Your task to perform on an android device: change your default location settings in chrome Image 0: 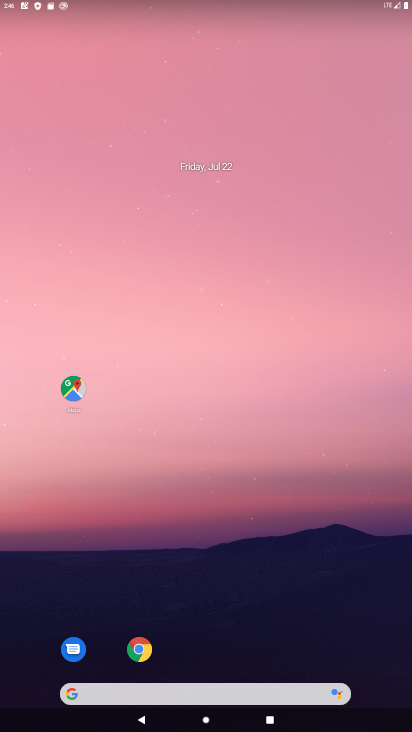
Step 0: drag from (238, 426) to (41, 0)
Your task to perform on an android device: change your default location settings in chrome Image 1: 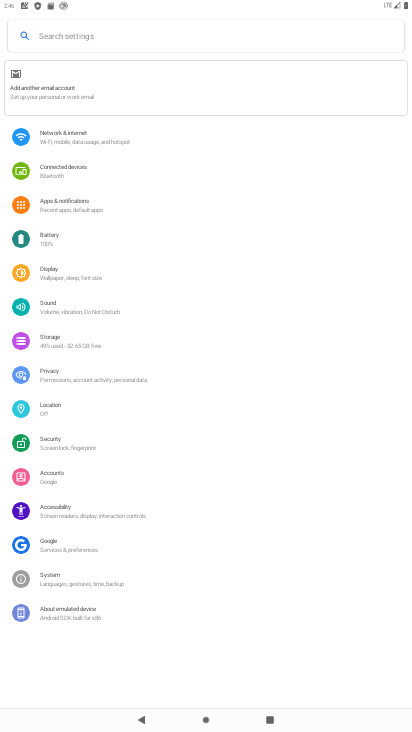
Step 1: press home button
Your task to perform on an android device: change your default location settings in chrome Image 2: 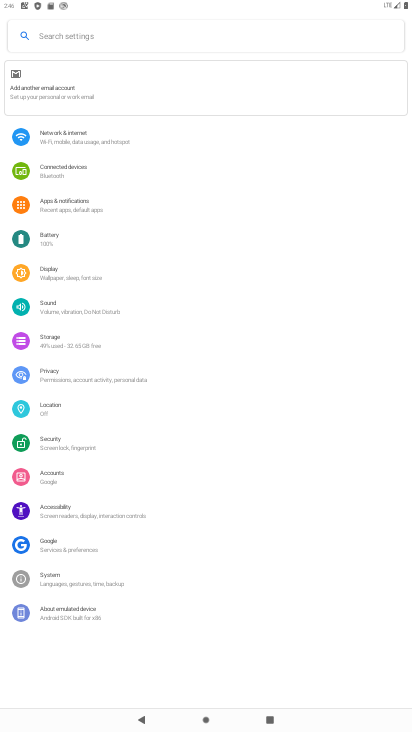
Step 2: press home button
Your task to perform on an android device: change your default location settings in chrome Image 3: 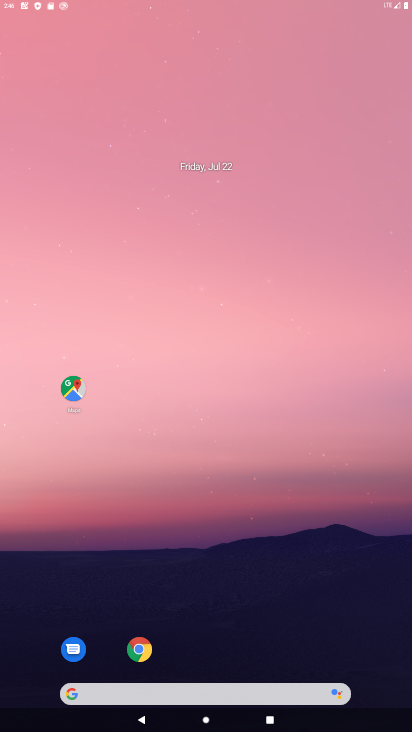
Step 3: drag from (185, 618) to (259, 14)
Your task to perform on an android device: change your default location settings in chrome Image 4: 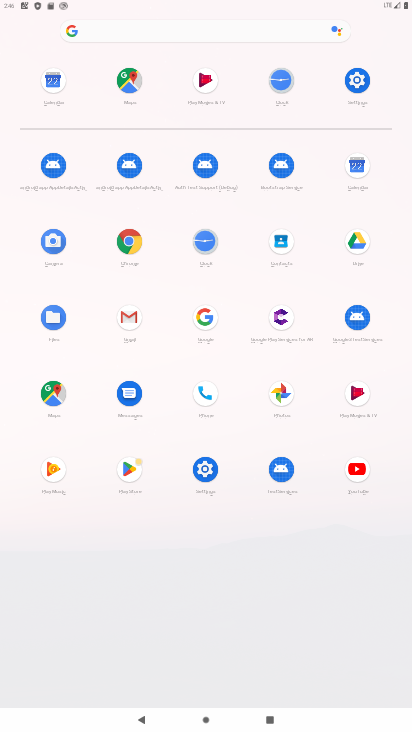
Step 4: click (126, 240)
Your task to perform on an android device: change your default location settings in chrome Image 5: 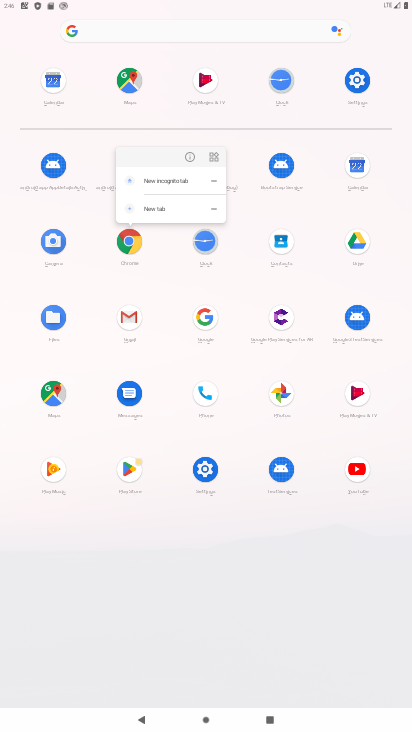
Step 5: click (187, 152)
Your task to perform on an android device: change your default location settings in chrome Image 6: 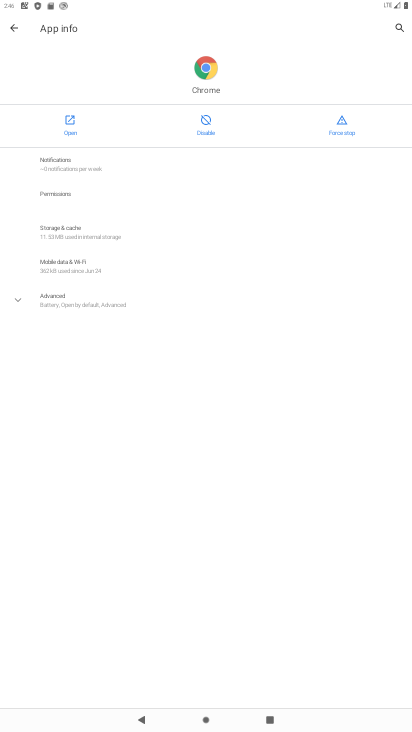
Step 6: drag from (204, 443) to (200, 123)
Your task to perform on an android device: change your default location settings in chrome Image 7: 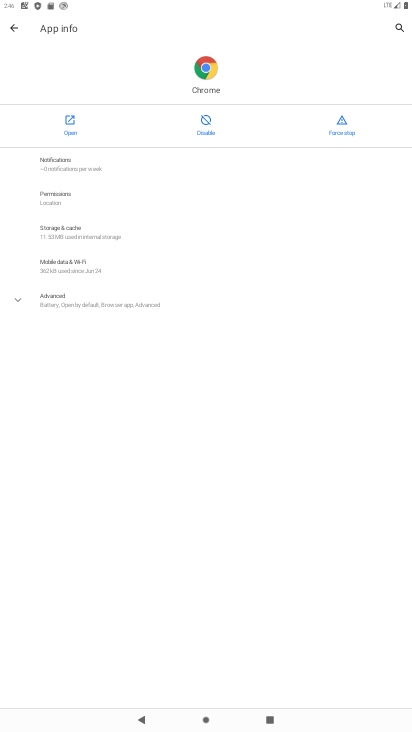
Step 7: click (81, 119)
Your task to perform on an android device: change your default location settings in chrome Image 8: 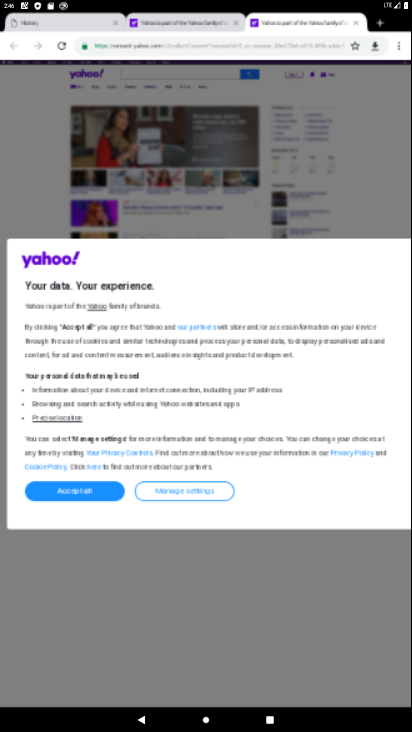
Step 8: drag from (244, 535) to (239, 298)
Your task to perform on an android device: change your default location settings in chrome Image 9: 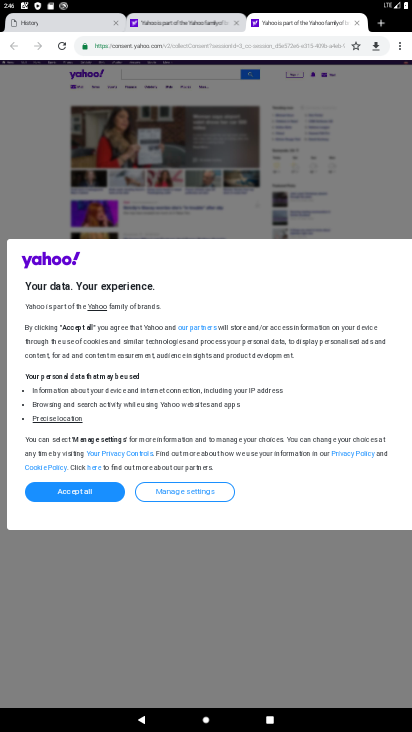
Step 9: drag from (239, 498) to (266, 288)
Your task to perform on an android device: change your default location settings in chrome Image 10: 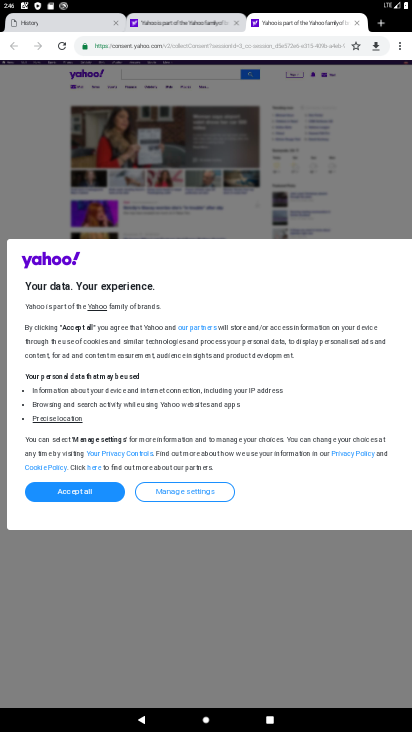
Step 10: drag from (158, 287) to (227, 574)
Your task to perform on an android device: change your default location settings in chrome Image 11: 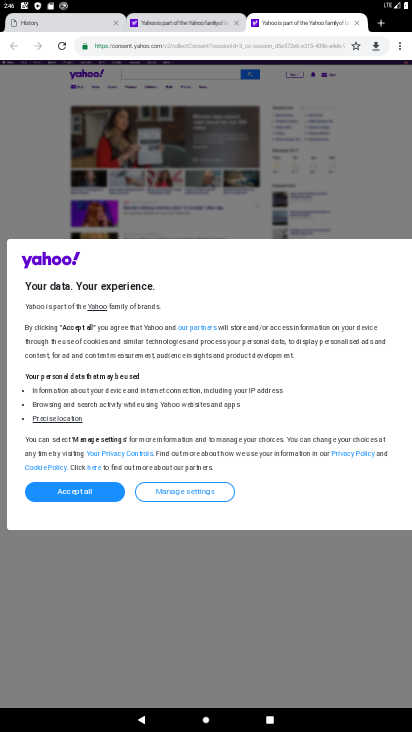
Step 11: drag from (227, 344) to (262, 576)
Your task to perform on an android device: change your default location settings in chrome Image 12: 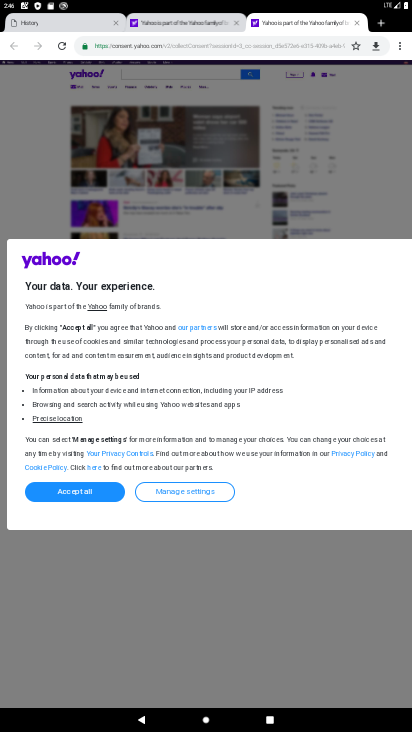
Step 12: drag from (397, 45) to (310, 308)
Your task to perform on an android device: change your default location settings in chrome Image 13: 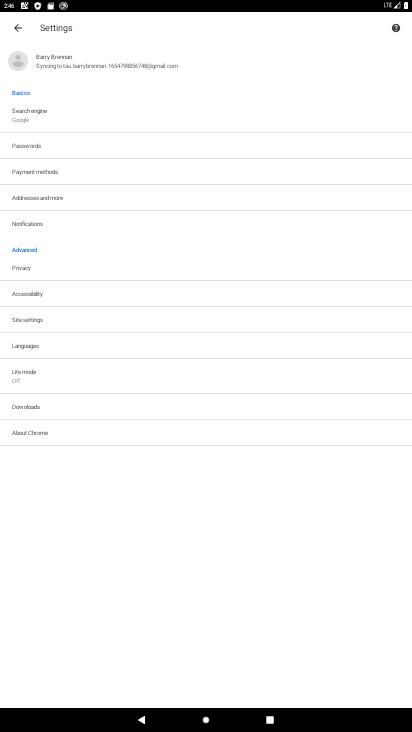
Step 13: click (40, 322)
Your task to perform on an android device: change your default location settings in chrome Image 14: 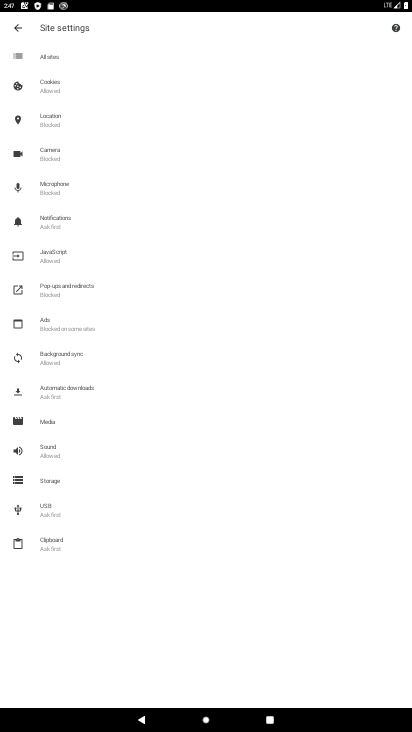
Step 14: click (82, 114)
Your task to perform on an android device: change your default location settings in chrome Image 15: 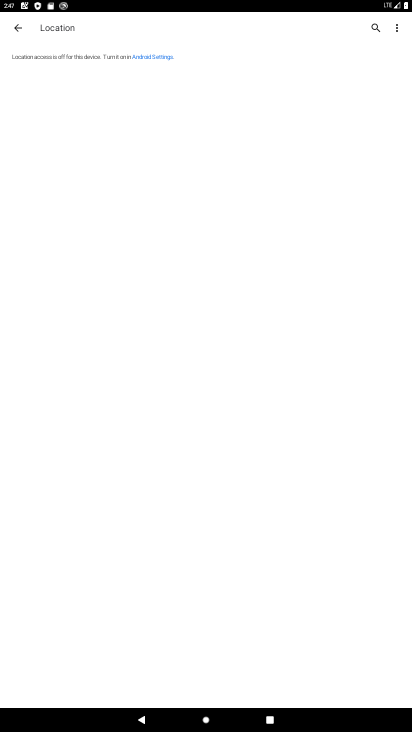
Step 15: drag from (233, 472) to (221, 157)
Your task to perform on an android device: change your default location settings in chrome Image 16: 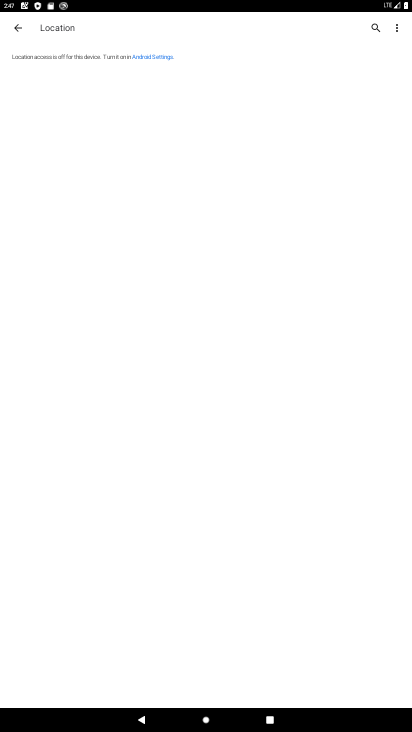
Step 16: drag from (217, 495) to (259, 223)
Your task to perform on an android device: change your default location settings in chrome Image 17: 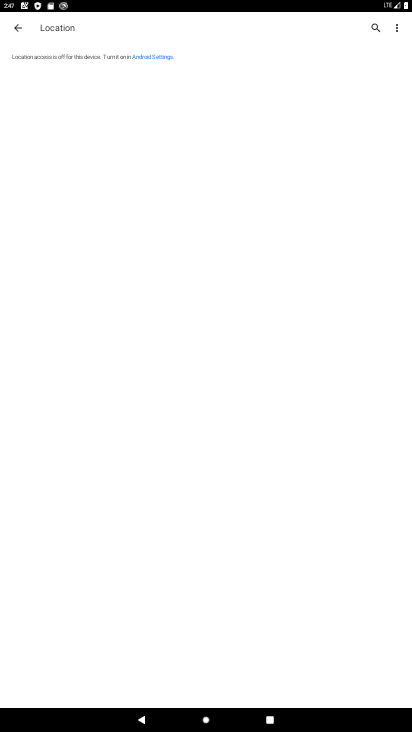
Step 17: click (225, 108)
Your task to perform on an android device: change your default location settings in chrome Image 18: 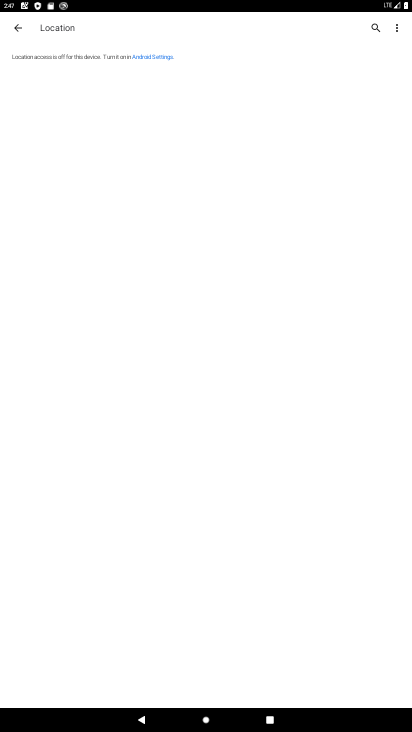
Step 18: task complete